Your task to perform on an android device: Open display settings Image 0: 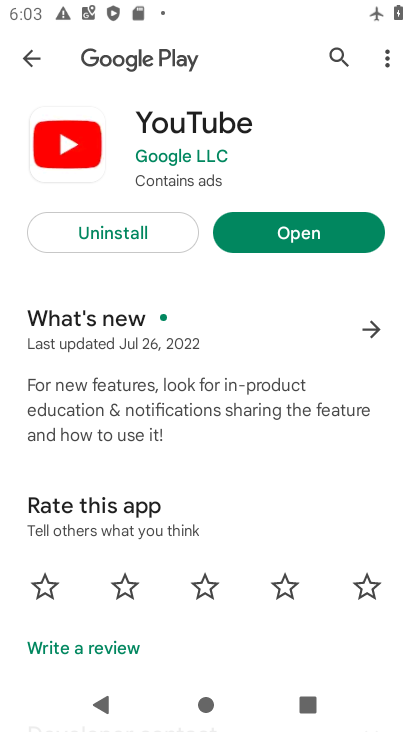
Step 0: press home button
Your task to perform on an android device: Open display settings Image 1: 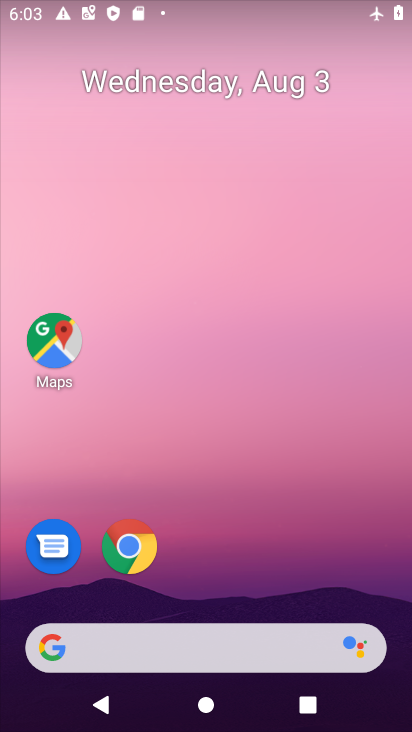
Step 1: drag from (245, 612) to (345, 0)
Your task to perform on an android device: Open display settings Image 2: 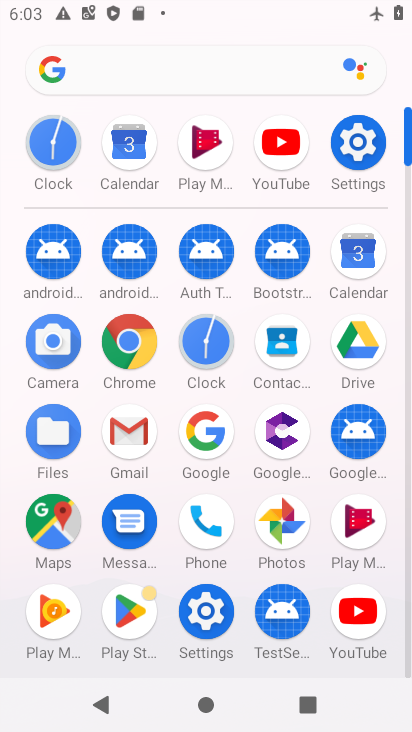
Step 2: click (349, 165)
Your task to perform on an android device: Open display settings Image 3: 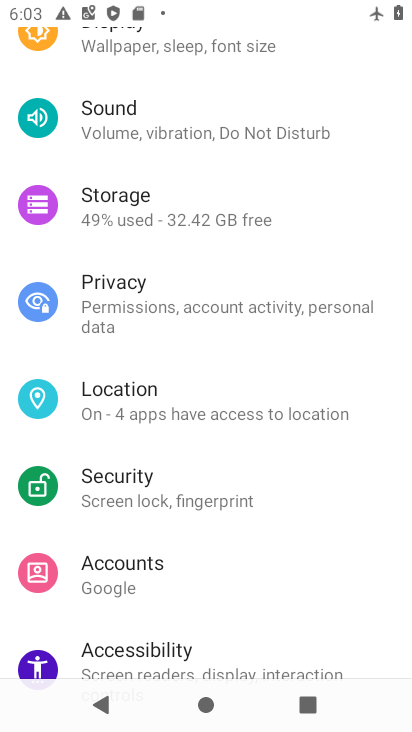
Step 3: drag from (366, 111) to (317, 577)
Your task to perform on an android device: Open display settings Image 4: 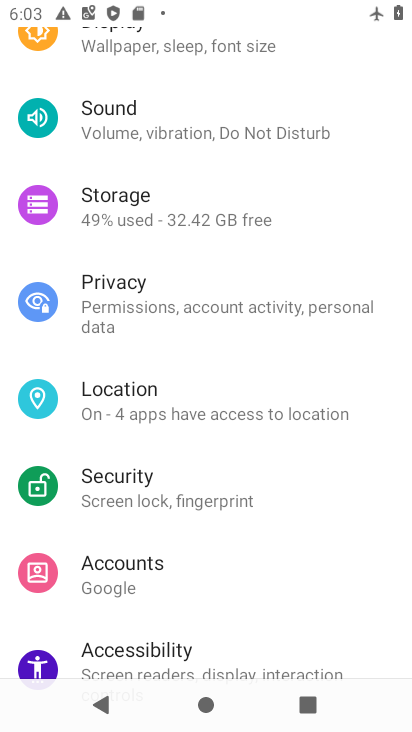
Step 4: drag from (370, 225) to (272, 623)
Your task to perform on an android device: Open display settings Image 5: 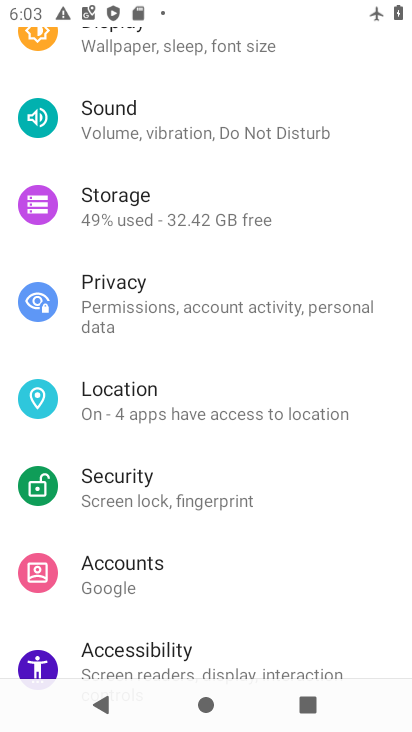
Step 5: drag from (294, 101) to (223, 648)
Your task to perform on an android device: Open display settings Image 6: 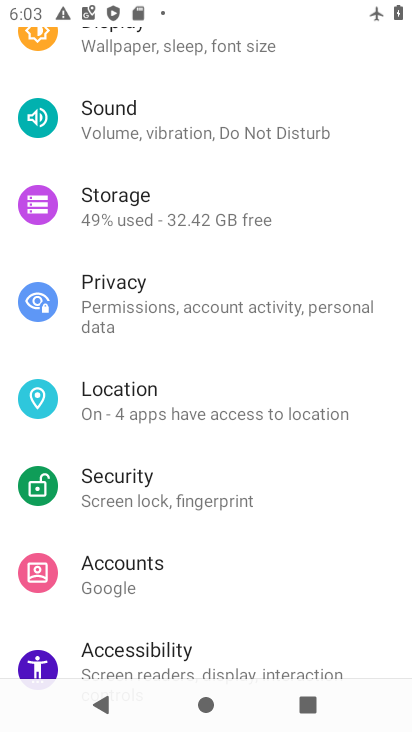
Step 6: drag from (285, 220) to (272, 682)
Your task to perform on an android device: Open display settings Image 7: 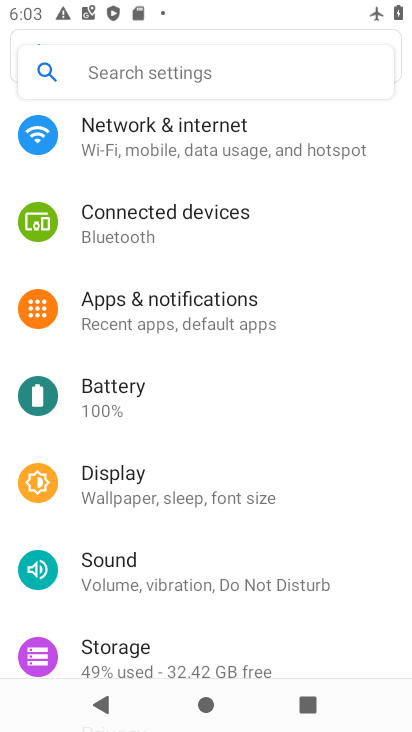
Step 7: click (128, 498)
Your task to perform on an android device: Open display settings Image 8: 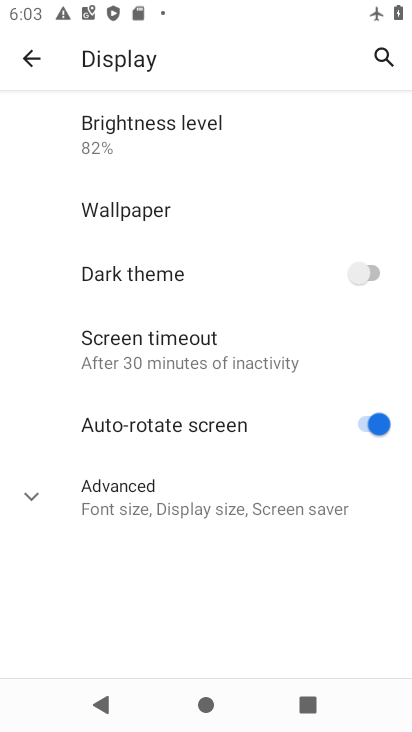
Step 8: task complete